Your task to perform on an android device: change the clock display to show seconds Image 0: 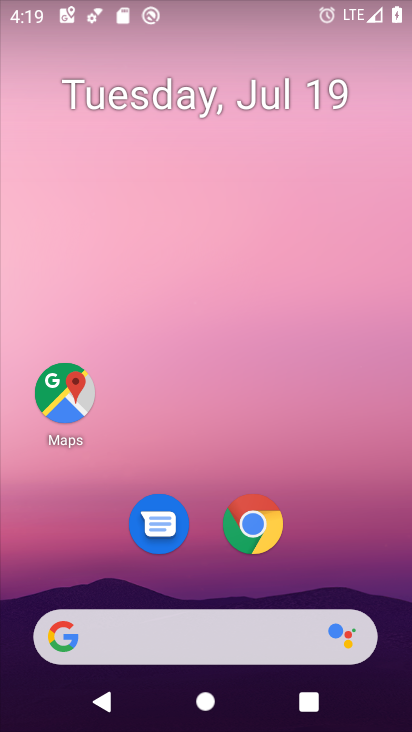
Step 0: drag from (327, 522) to (337, 40)
Your task to perform on an android device: change the clock display to show seconds Image 1: 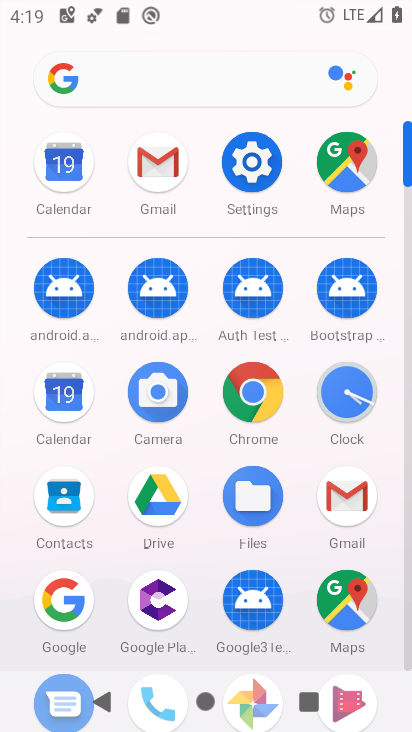
Step 1: click (333, 391)
Your task to perform on an android device: change the clock display to show seconds Image 2: 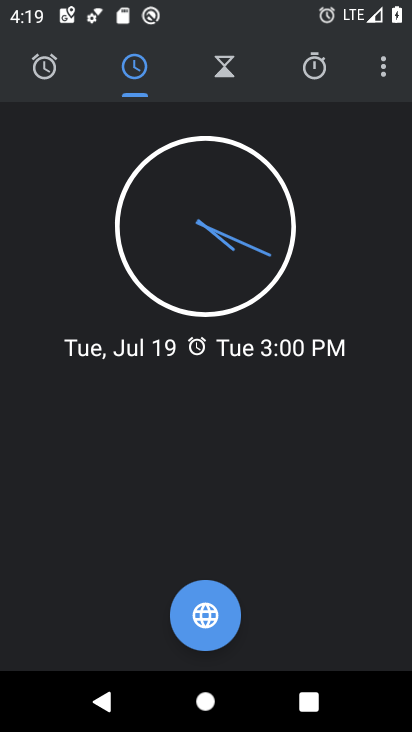
Step 2: click (381, 69)
Your task to perform on an android device: change the clock display to show seconds Image 3: 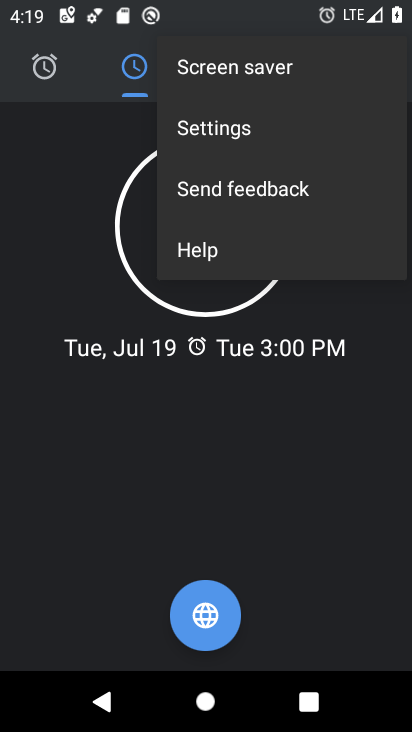
Step 3: click (302, 132)
Your task to perform on an android device: change the clock display to show seconds Image 4: 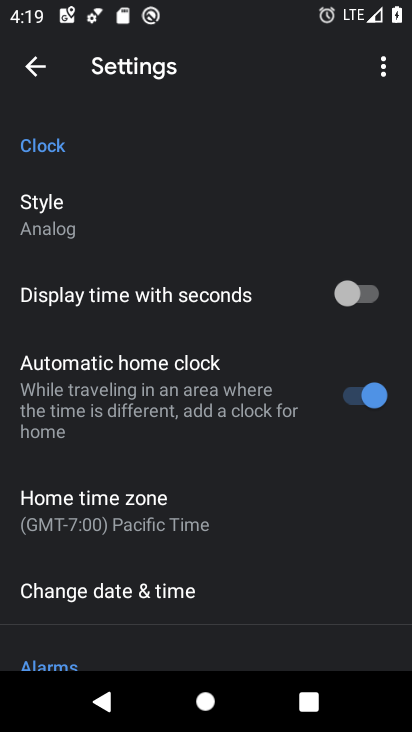
Step 4: click (366, 289)
Your task to perform on an android device: change the clock display to show seconds Image 5: 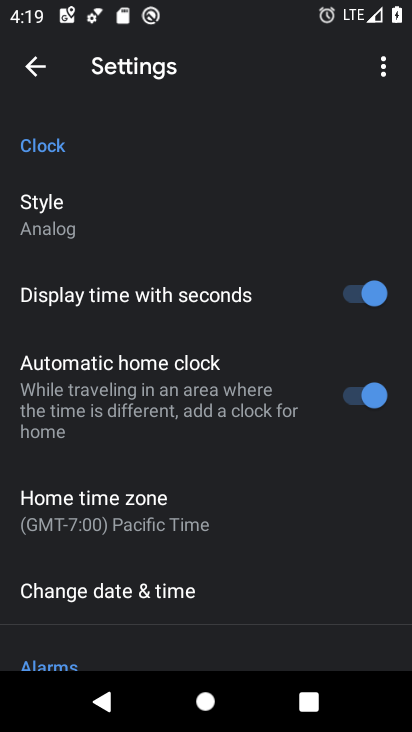
Step 5: click (41, 65)
Your task to perform on an android device: change the clock display to show seconds Image 6: 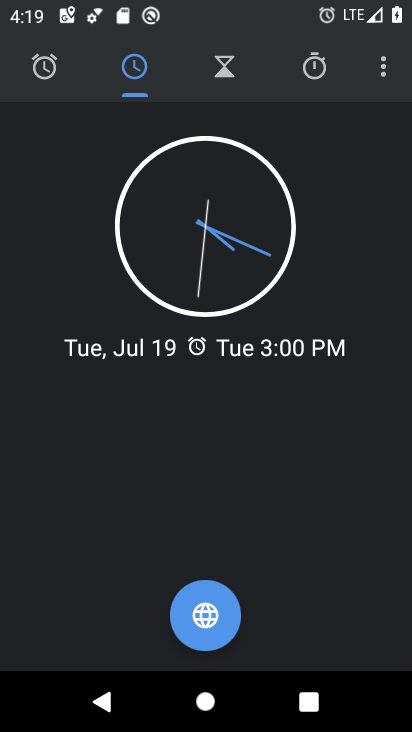
Step 6: task complete